Your task to perform on an android device: Do I have any events this weekend? Image 0: 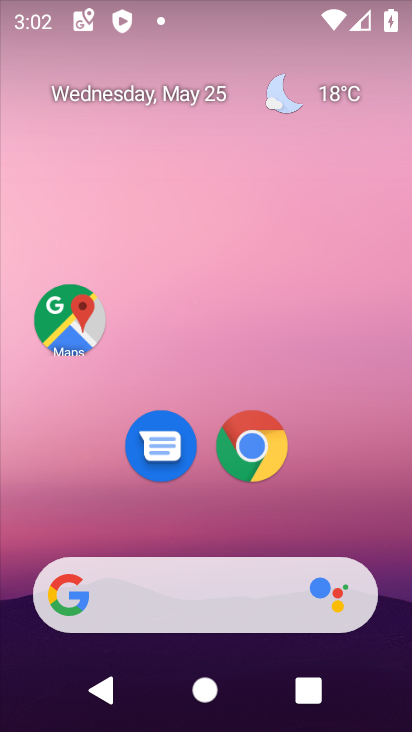
Step 0: drag from (194, 595) to (180, 141)
Your task to perform on an android device: Do I have any events this weekend? Image 1: 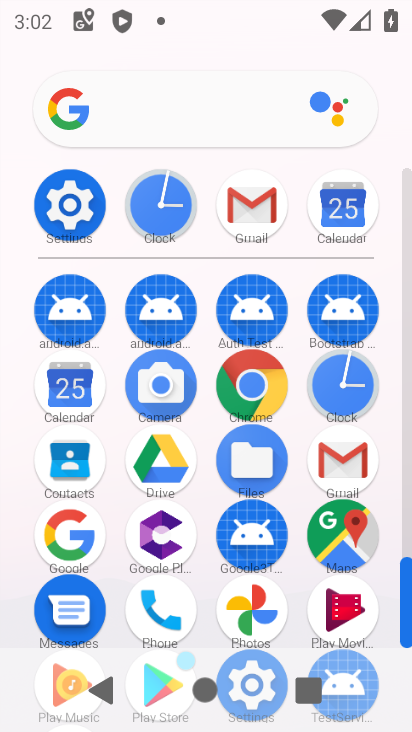
Step 1: click (71, 371)
Your task to perform on an android device: Do I have any events this weekend? Image 2: 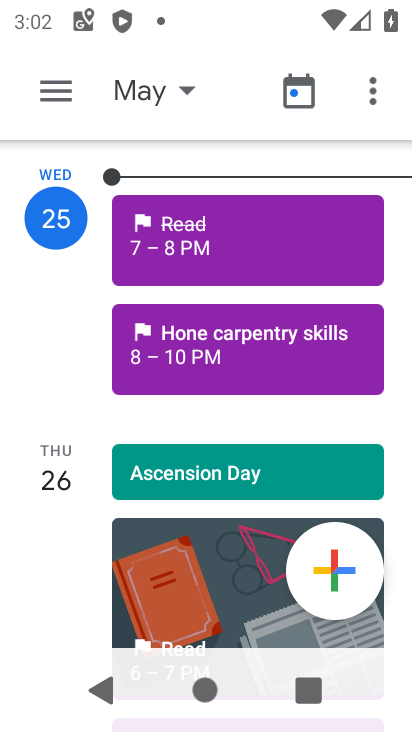
Step 2: click (55, 86)
Your task to perform on an android device: Do I have any events this weekend? Image 3: 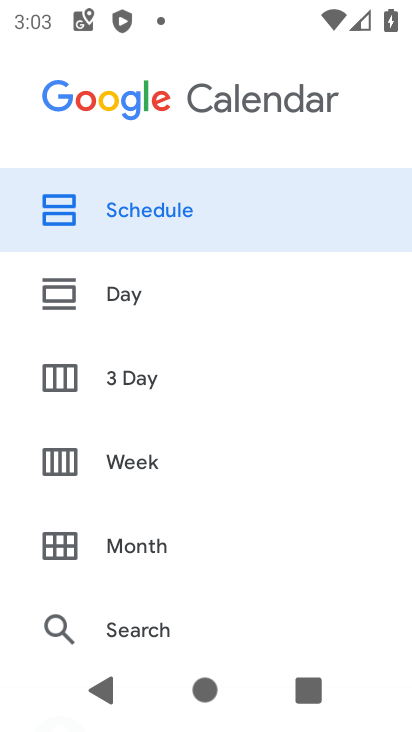
Step 3: click (176, 471)
Your task to perform on an android device: Do I have any events this weekend? Image 4: 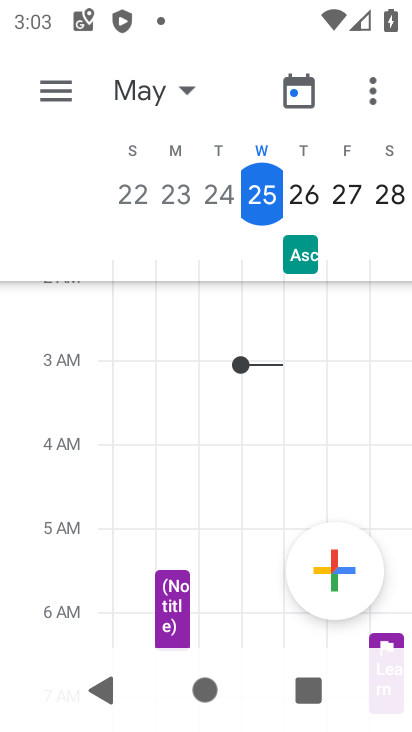
Step 4: task complete